Your task to perform on an android device: Open wifi settings Image 0: 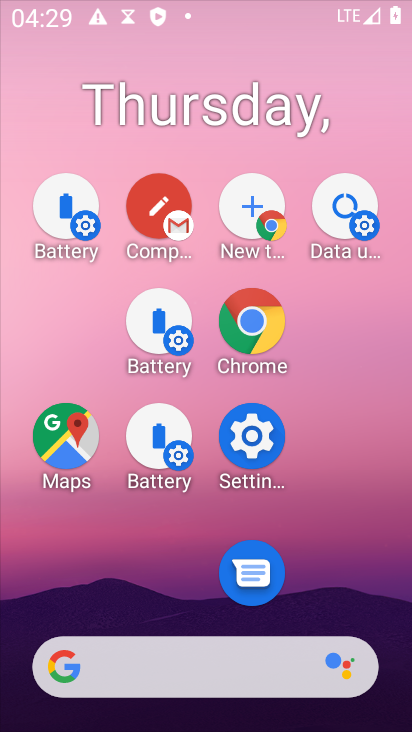
Step 0: drag from (284, 681) to (243, 269)
Your task to perform on an android device: Open wifi settings Image 1: 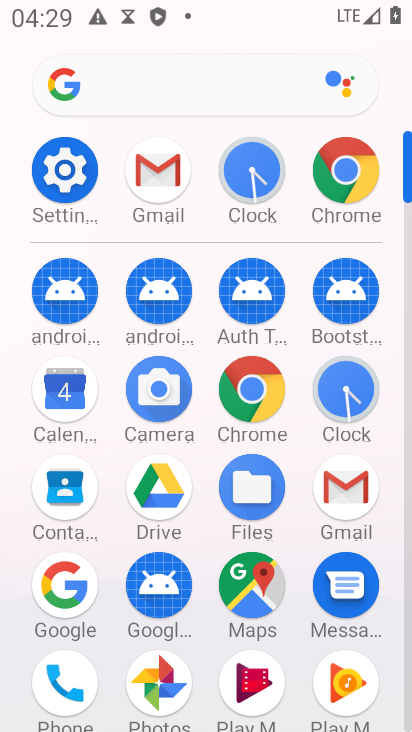
Step 1: click (60, 172)
Your task to perform on an android device: Open wifi settings Image 2: 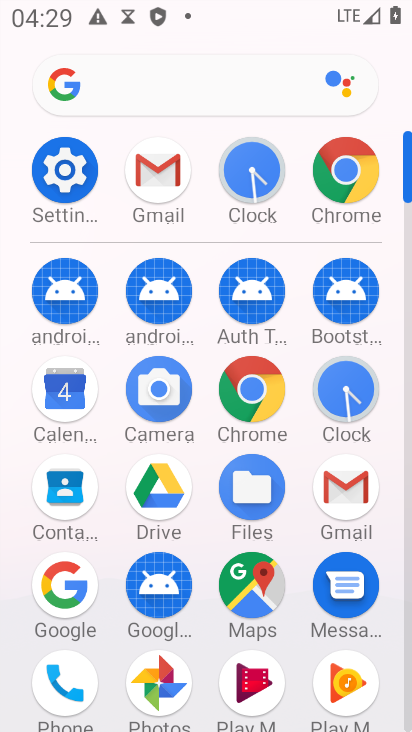
Step 2: click (60, 173)
Your task to perform on an android device: Open wifi settings Image 3: 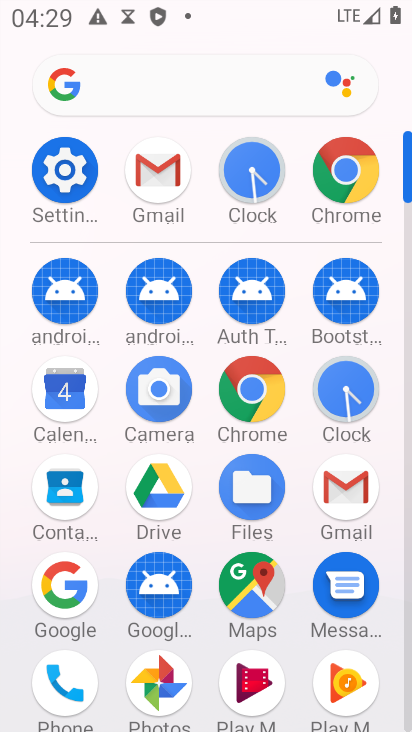
Step 3: click (60, 173)
Your task to perform on an android device: Open wifi settings Image 4: 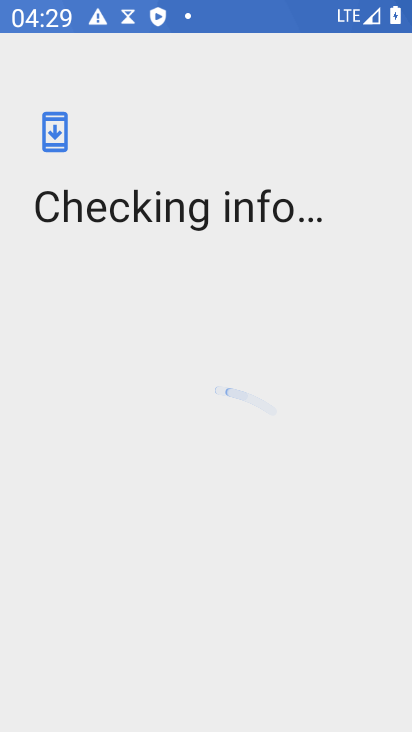
Step 4: task complete